Your task to perform on an android device: Clear the cart on newegg. Add logitech g910 to the cart on newegg, then select checkout. Image 0: 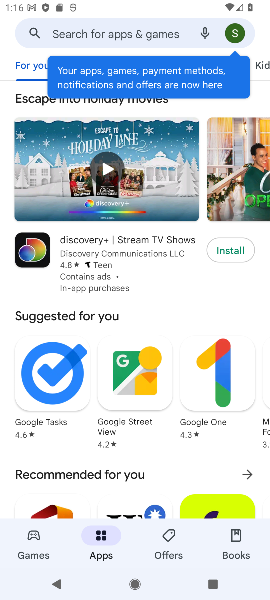
Step 0: press home button
Your task to perform on an android device: Clear the cart on newegg. Add logitech g910 to the cart on newegg, then select checkout. Image 1: 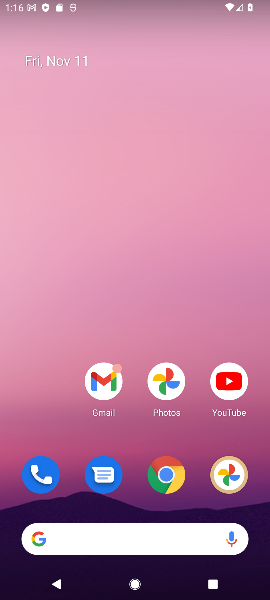
Step 1: drag from (172, 412) to (134, 24)
Your task to perform on an android device: Clear the cart on newegg. Add logitech g910 to the cart on newegg, then select checkout. Image 2: 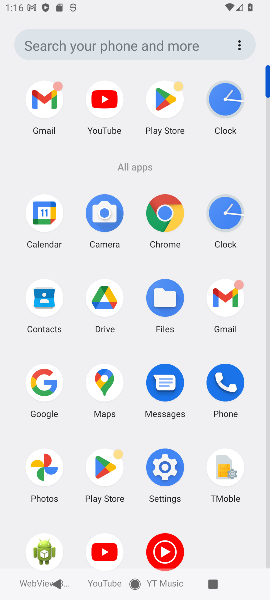
Step 2: click (157, 220)
Your task to perform on an android device: Clear the cart on newegg. Add logitech g910 to the cart on newegg, then select checkout. Image 3: 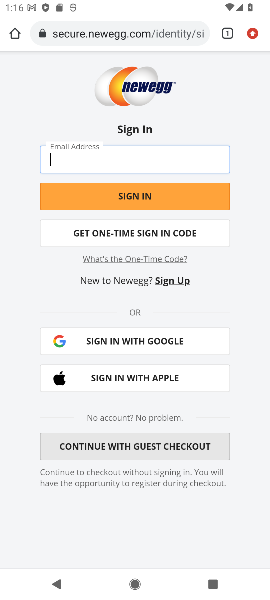
Step 3: press back button
Your task to perform on an android device: Clear the cart on newegg. Add logitech g910 to the cart on newegg, then select checkout. Image 4: 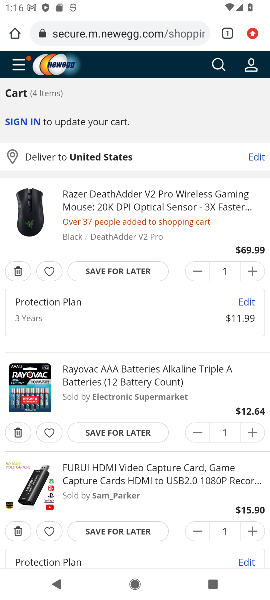
Step 4: click (195, 273)
Your task to perform on an android device: Clear the cart on newegg. Add logitech g910 to the cart on newegg, then select checkout. Image 5: 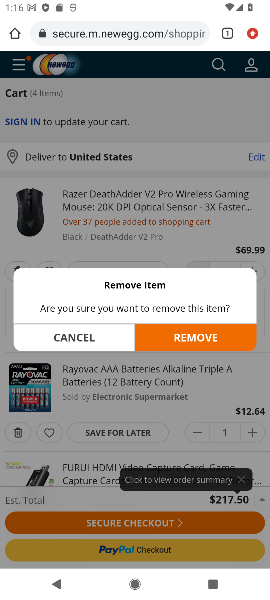
Step 5: click (176, 340)
Your task to perform on an android device: Clear the cart on newegg. Add logitech g910 to the cart on newegg, then select checkout. Image 6: 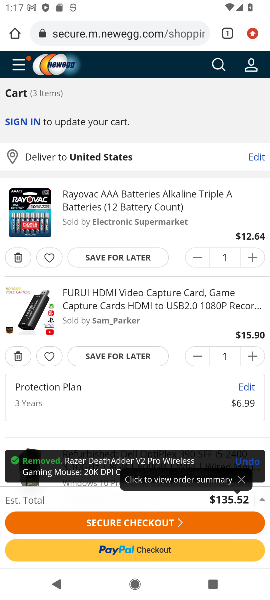
Step 6: click (20, 259)
Your task to perform on an android device: Clear the cart on newegg. Add logitech g910 to the cart on newegg, then select checkout. Image 7: 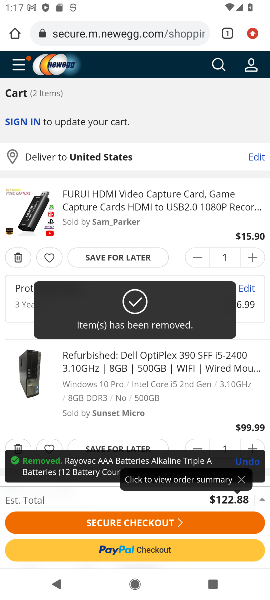
Step 7: click (20, 259)
Your task to perform on an android device: Clear the cart on newegg. Add logitech g910 to the cart on newegg, then select checkout. Image 8: 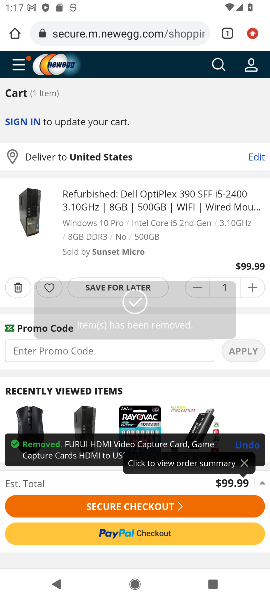
Step 8: click (15, 287)
Your task to perform on an android device: Clear the cart on newegg. Add logitech g910 to the cart on newegg, then select checkout. Image 9: 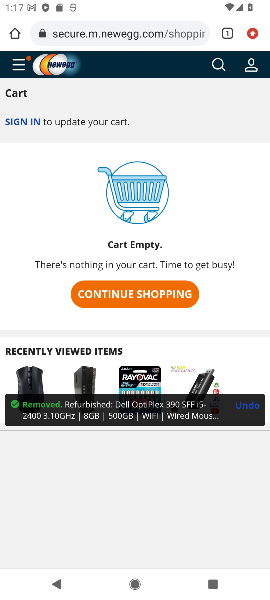
Step 9: click (225, 63)
Your task to perform on an android device: Clear the cart on newegg. Add logitech g910 to the cart on newegg, then select checkout. Image 10: 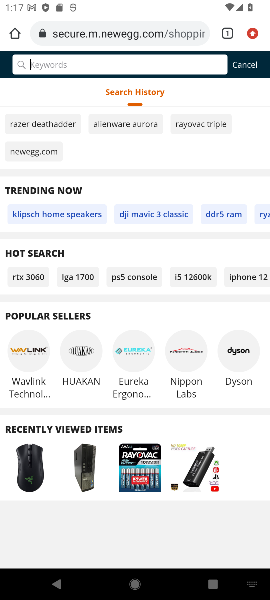
Step 10: type "logitech g910"
Your task to perform on an android device: Clear the cart on newegg. Add logitech g910 to the cart on newegg, then select checkout. Image 11: 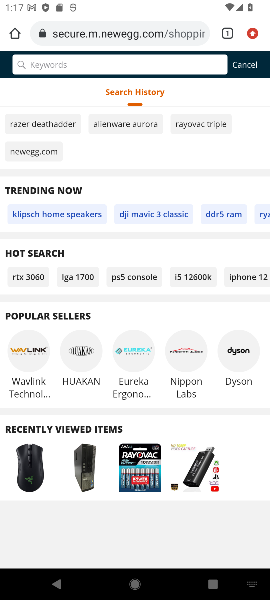
Step 11: press enter
Your task to perform on an android device: Clear the cart on newegg. Add logitech g910 to the cart on newegg, then select checkout. Image 12: 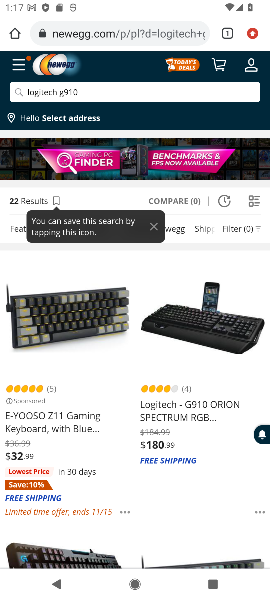
Step 12: click (16, 422)
Your task to perform on an android device: Clear the cart on newegg. Add logitech g910 to the cart on newegg, then select checkout. Image 13: 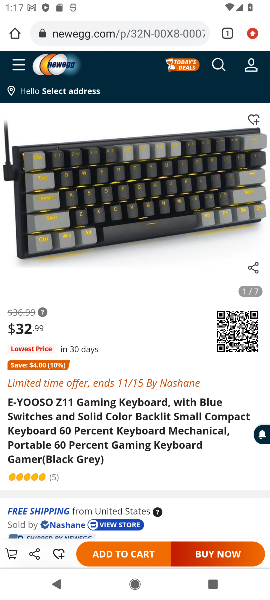
Step 13: click (120, 562)
Your task to perform on an android device: Clear the cart on newegg. Add logitech g910 to the cart on newegg, then select checkout. Image 14: 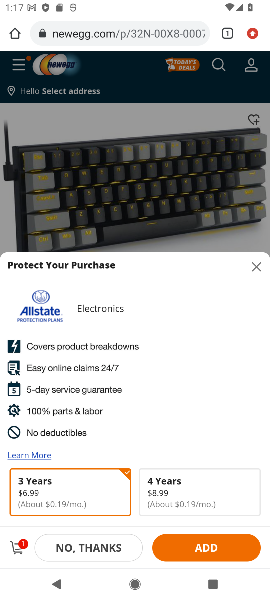
Step 14: click (206, 539)
Your task to perform on an android device: Clear the cart on newegg. Add logitech g910 to the cart on newegg, then select checkout. Image 15: 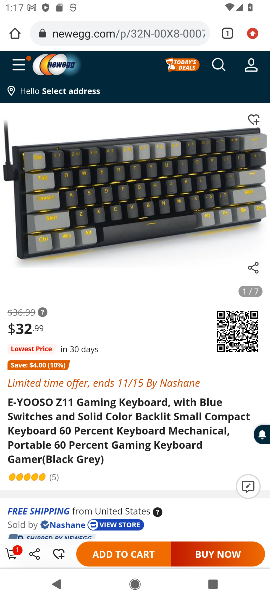
Step 15: click (16, 552)
Your task to perform on an android device: Clear the cart on newegg. Add logitech g910 to the cart on newegg, then select checkout. Image 16: 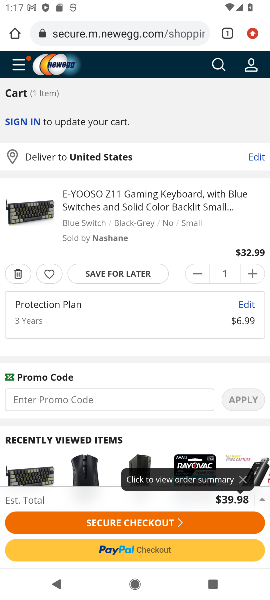
Step 16: click (103, 465)
Your task to perform on an android device: Clear the cart on newegg. Add logitech g910 to the cart on newegg, then select checkout. Image 17: 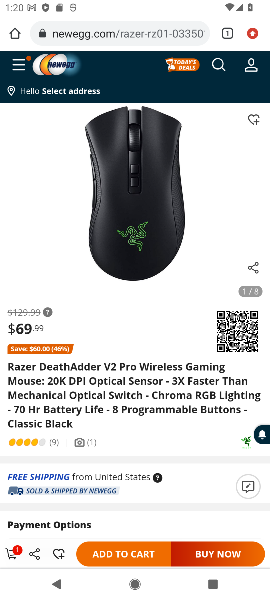
Step 17: task complete